Your task to perform on an android device: Open network settings Image 0: 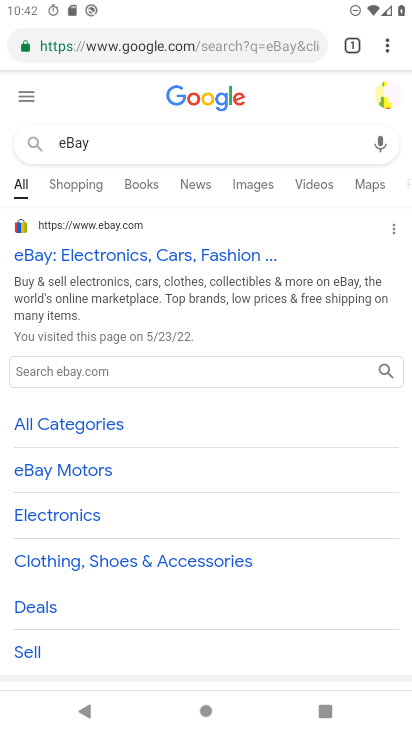
Step 0: press home button
Your task to perform on an android device: Open network settings Image 1: 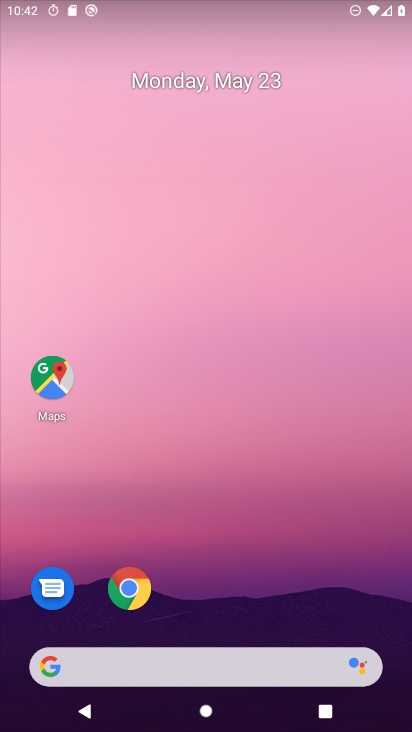
Step 1: drag from (387, 638) to (396, 191)
Your task to perform on an android device: Open network settings Image 2: 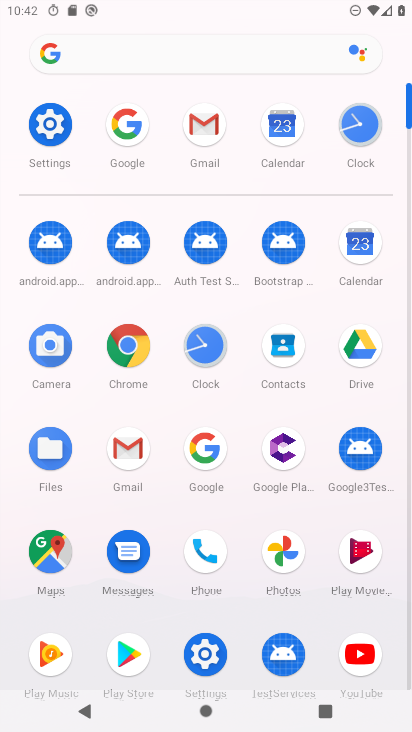
Step 2: click (204, 654)
Your task to perform on an android device: Open network settings Image 3: 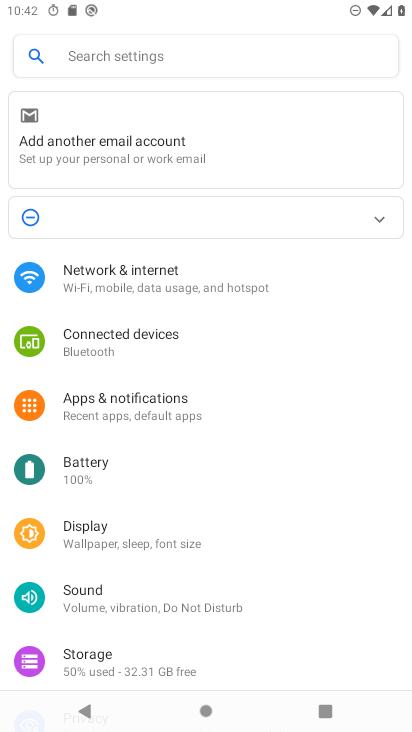
Step 3: click (121, 273)
Your task to perform on an android device: Open network settings Image 4: 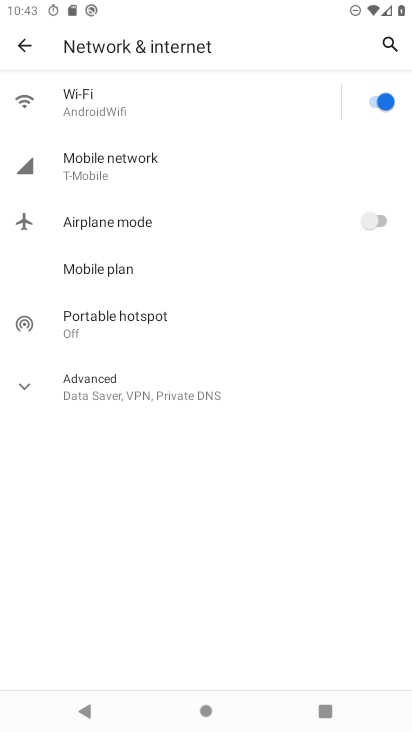
Step 4: click (115, 166)
Your task to perform on an android device: Open network settings Image 5: 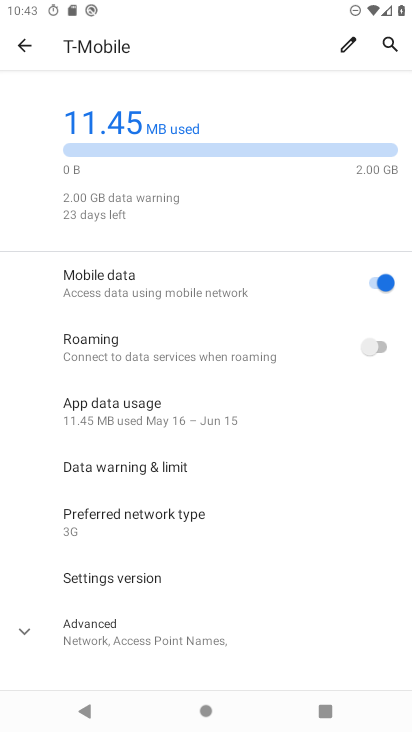
Step 5: task complete